Your task to perform on an android device: remove spam from my inbox in the gmail app Image 0: 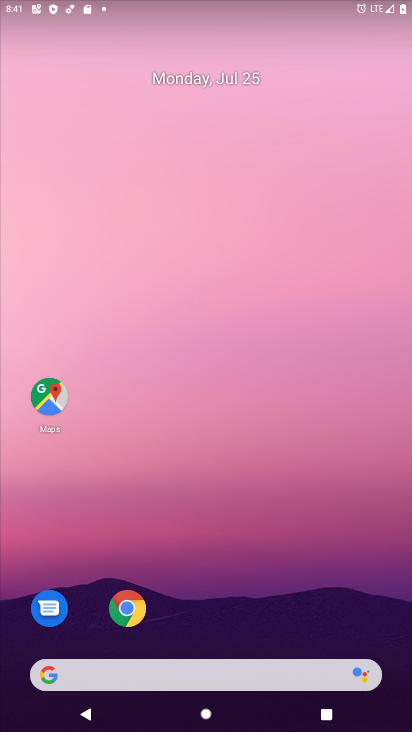
Step 0: drag from (229, 725) to (222, 183)
Your task to perform on an android device: remove spam from my inbox in the gmail app Image 1: 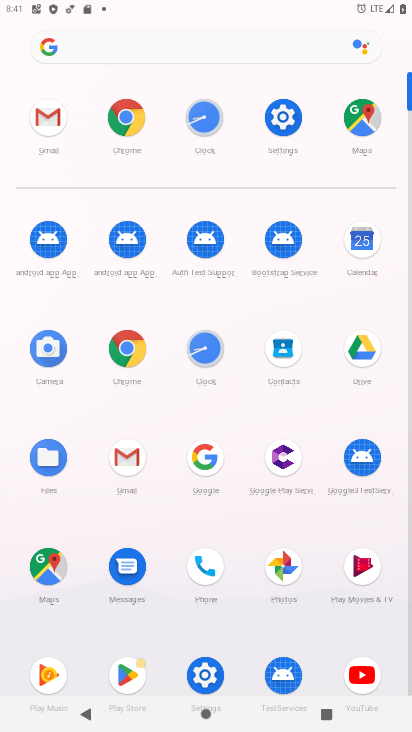
Step 1: click (124, 456)
Your task to perform on an android device: remove spam from my inbox in the gmail app Image 2: 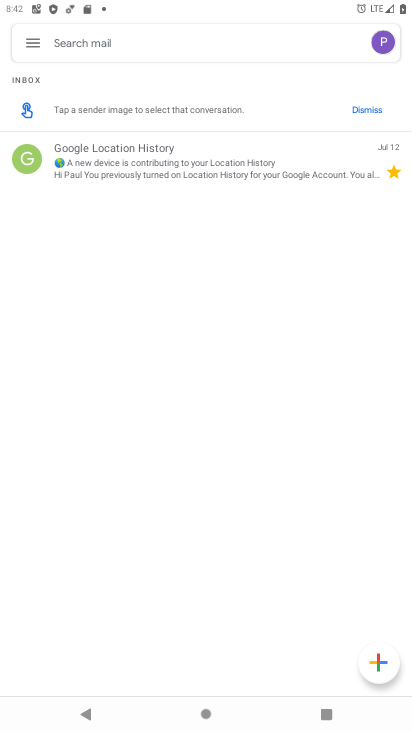
Step 2: click (211, 168)
Your task to perform on an android device: remove spam from my inbox in the gmail app Image 3: 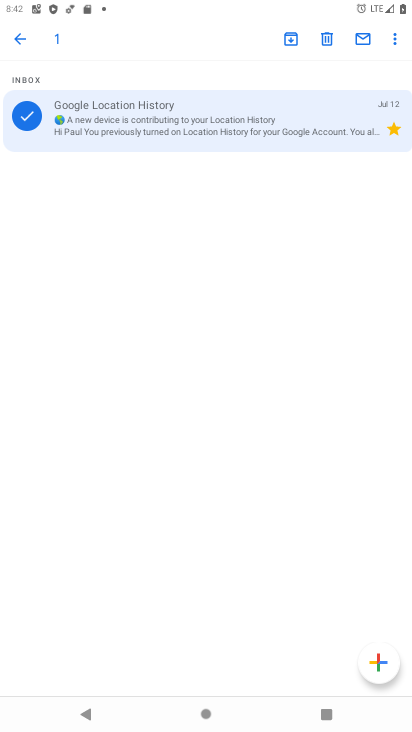
Step 3: click (394, 39)
Your task to perform on an android device: remove spam from my inbox in the gmail app Image 4: 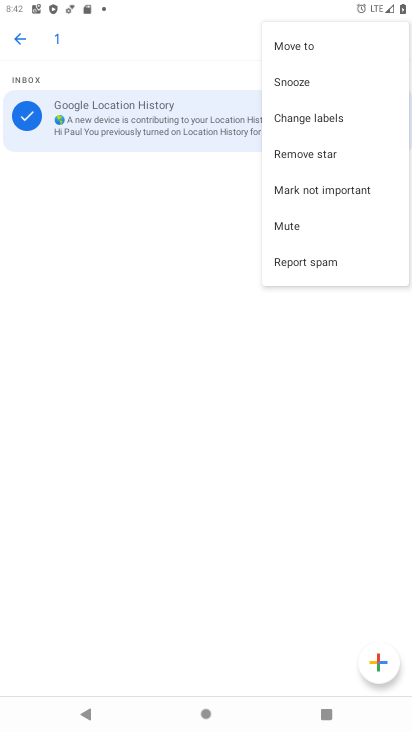
Step 4: task complete